Your task to perform on an android device: toggle translation in the chrome app Image 0: 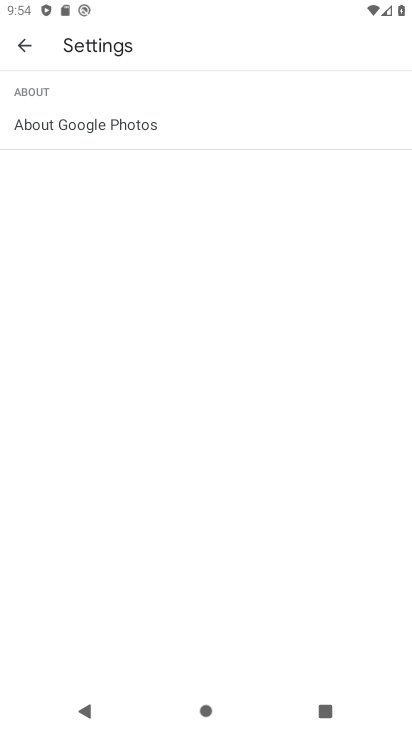
Step 0: press home button
Your task to perform on an android device: toggle translation in the chrome app Image 1: 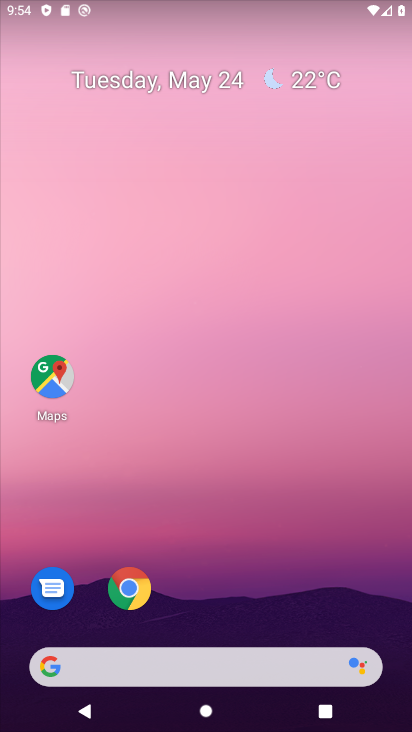
Step 1: click (131, 588)
Your task to perform on an android device: toggle translation in the chrome app Image 2: 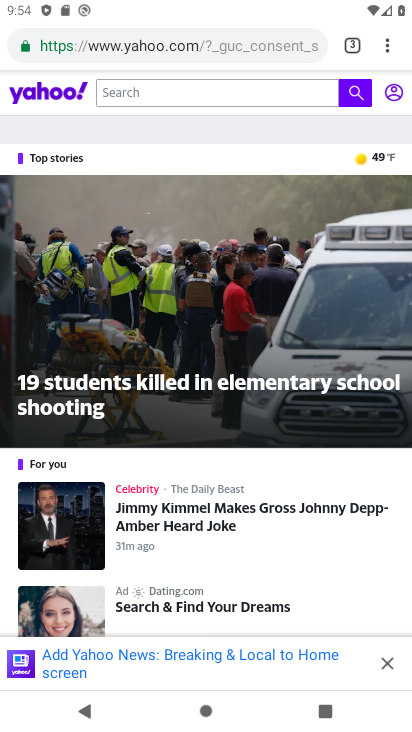
Step 2: click (395, 42)
Your task to perform on an android device: toggle translation in the chrome app Image 3: 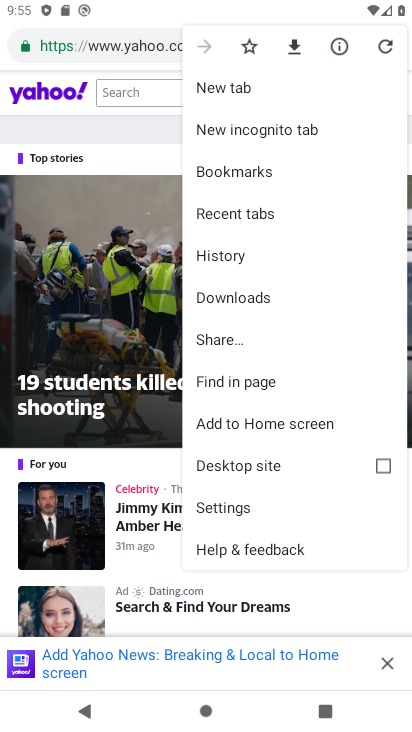
Step 3: click (250, 510)
Your task to perform on an android device: toggle translation in the chrome app Image 4: 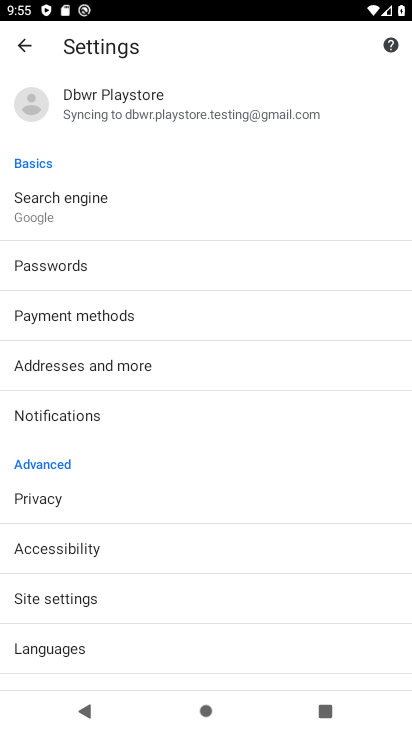
Step 4: click (50, 644)
Your task to perform on an android device: toggle translation in the chrome app Image 5: 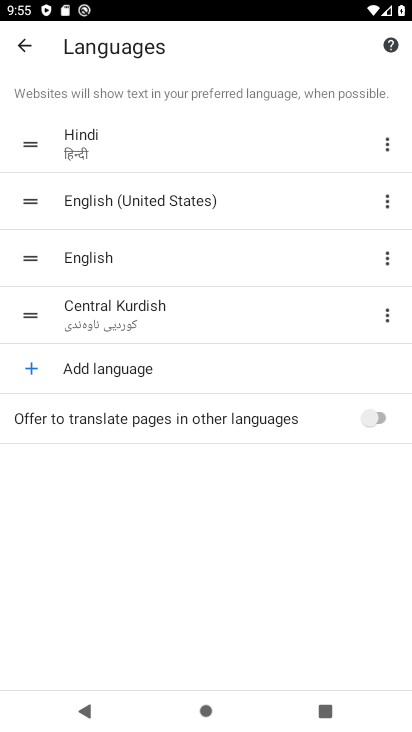
Step 5: click (389, 416)
Your task to perform on an android device: toggle translation in the chrome app Image 6: 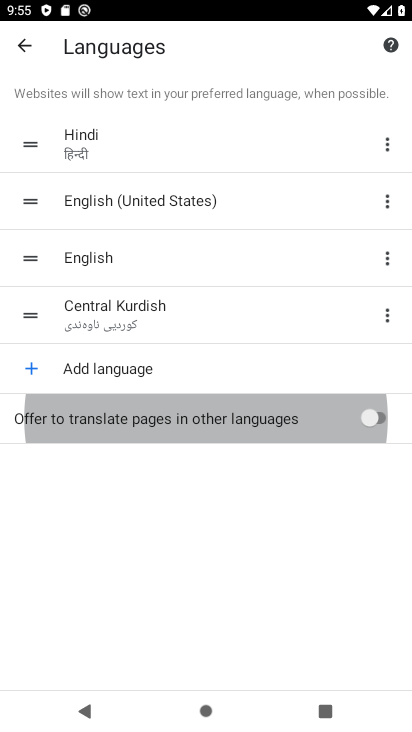
Step 6: click (389, 416)
Your task to perform on an android device: toggle translation in the chrome app Image 7: 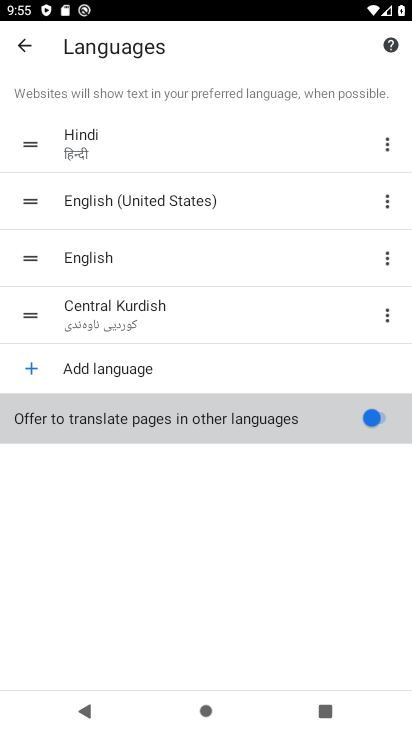
Step 7: click (389, 416)
Your task to perform on an android device: toggle translation in the chrome app Image 8: 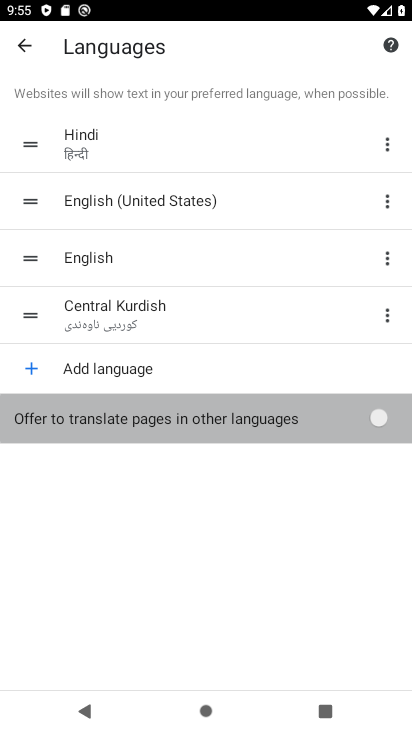
Step 8: click (389, 416)
Your task to perform on an android device: toggle translation in the chrome app Image 9: 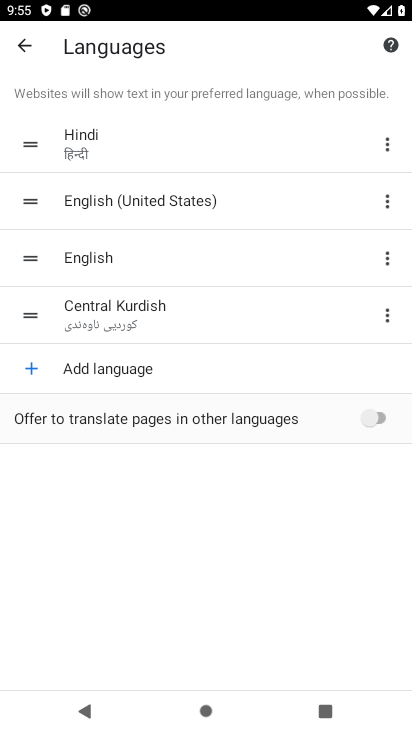
Step 9: click (389, 416)
Your task to perform on an android device: toggle translation in the chrome app Image 10: 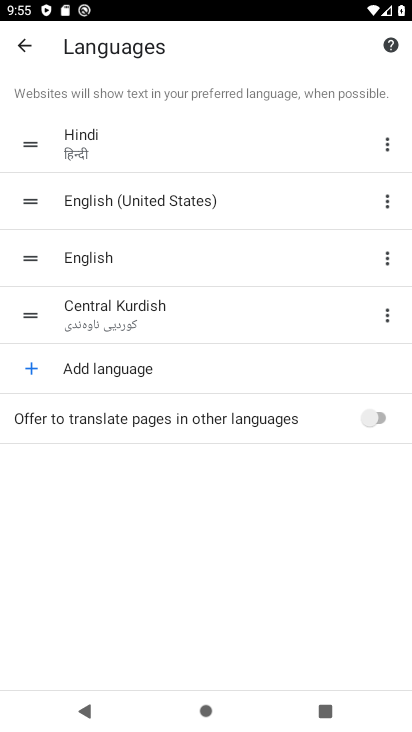
Step 10: click (389, 416)
Your task to perform on an android device: toggle translation in the chrome app Image 11: 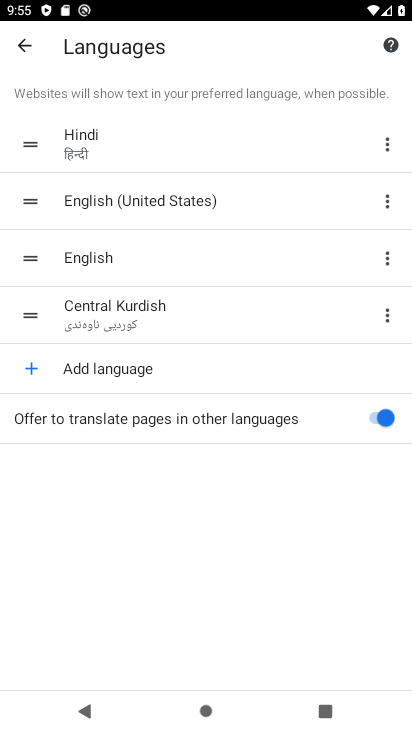
Step 11: task complete